Your task to perform on an android device: turn off smart reply in the gmail app Image 0: 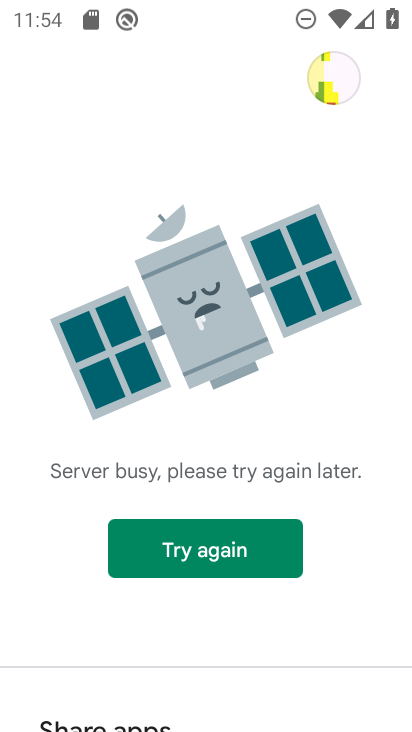
Step 0: press home button
Your task to perform on an android device: turn off smart reply in the gmail app Image 1: 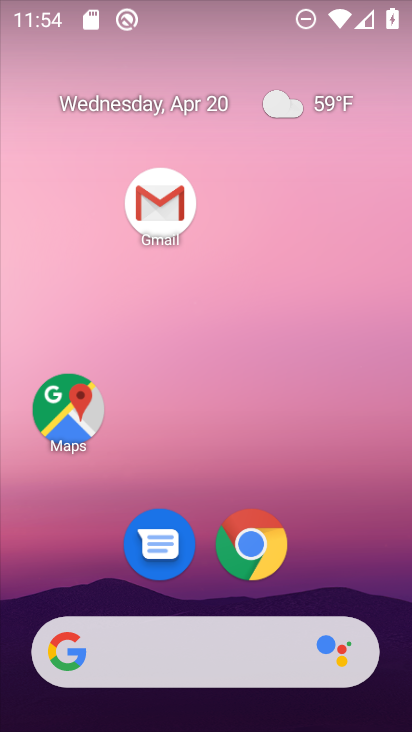
Step 1: click (155, 198)
Your task to perform on an android device: turn off smart reply in the gmail app Image 2: 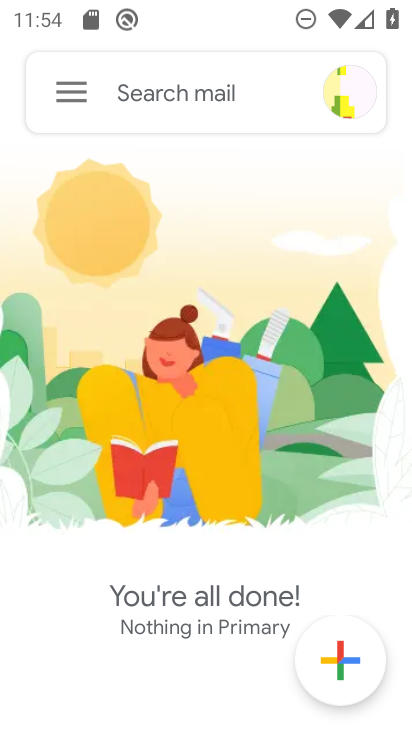
Step 2: click (79, 86)
Your task to perform on an android device: turn off smart reply in the gmail app Image 3: 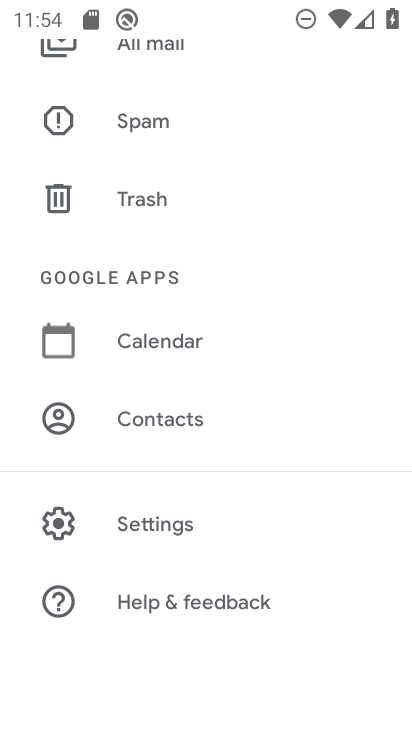
Step 3: click (148, 497)
Your task to perform on an android device: turn off smart reply in the gmail app Image 4: 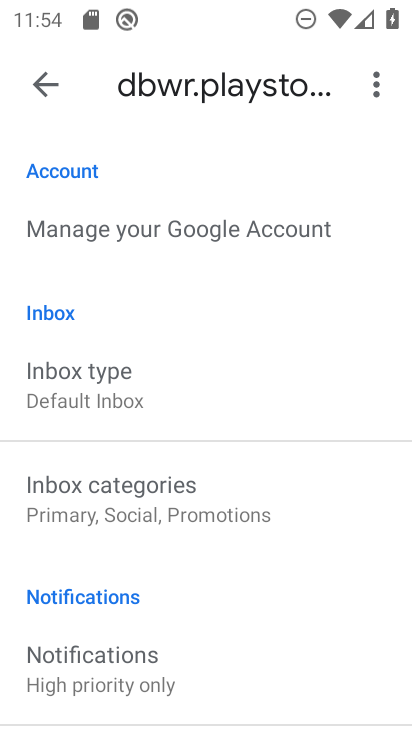
Step 4: drag from (190, 578) to (228, 105)
Your task to perform on an android device: turn off smart reply in the gmail app Image 5: 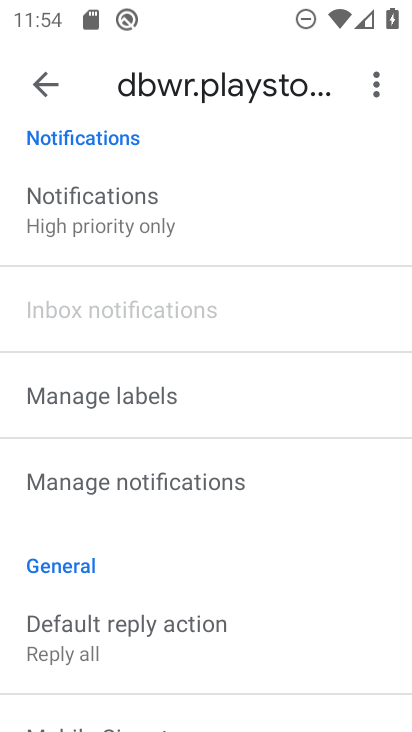
Step 5: drag from (196, 602) to (242, 142)
Your task to perform on an android device: turn off smart reply in the gmail app Image 6: 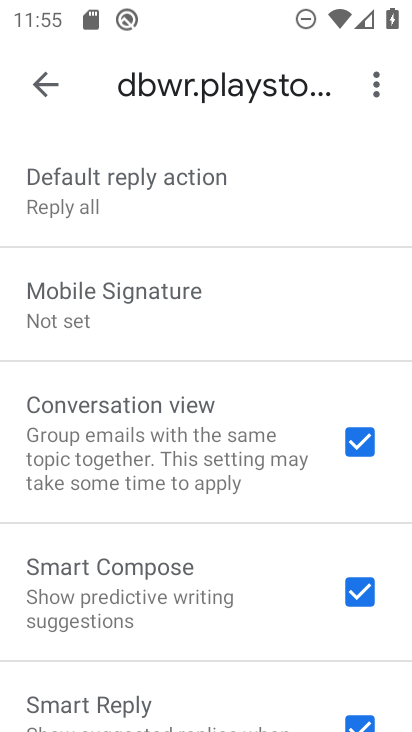
Step 6: drag from (278, 600) to (274, 182)
Your task to perform on an android device: turn off smart reply in the gmail app Image 7: 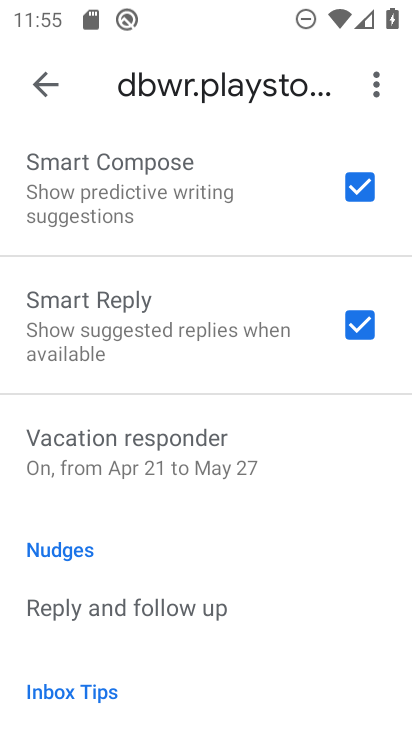
Step 7: click (350, 326)
Your task to perform on an android device: turn off smart reply in the gmail app Image 8: 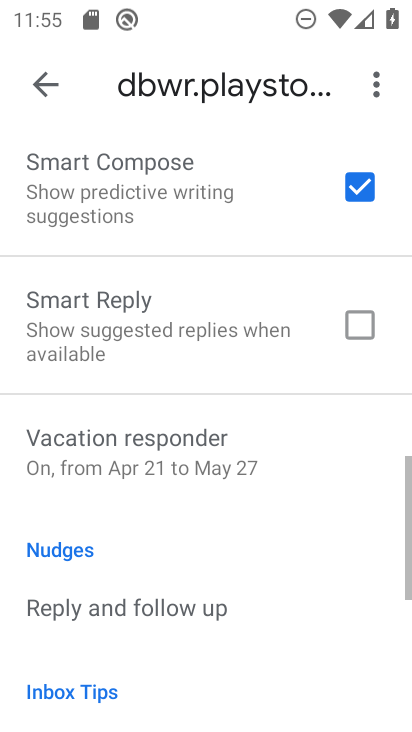
Step 8: task complete